Your task to perform on an android device: Go to Reddit.com Image 0: 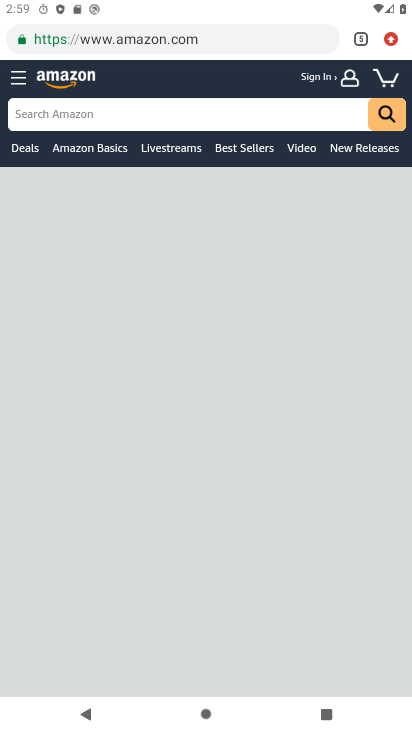
Step 0: press home button
Your task to perform on an android device: Go to Reddit.com Image 1: 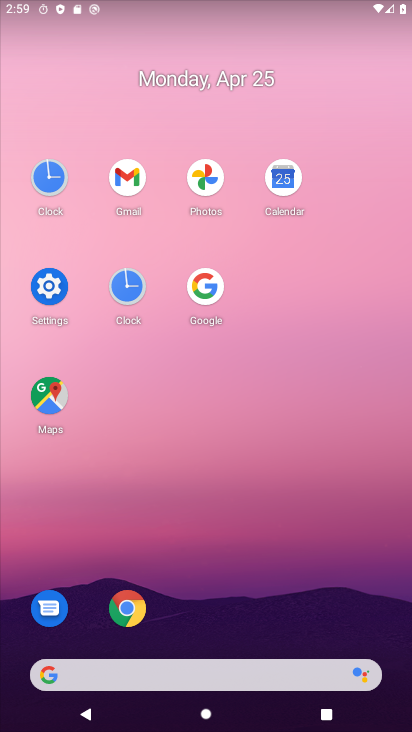
Step 1: click (130, 615)
Your task to perform on an android device: Go to Reddit.com Image 2: 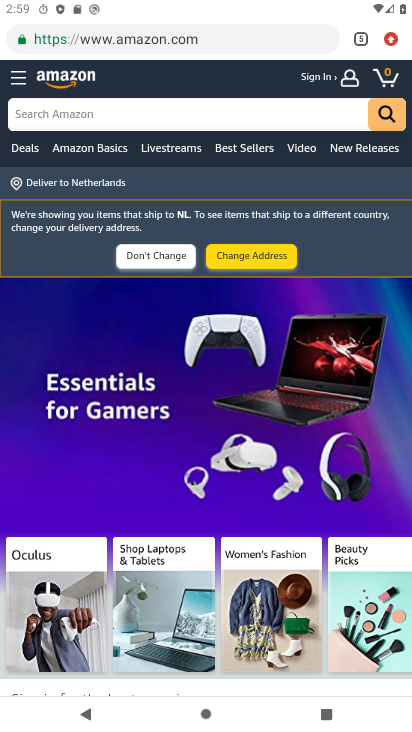
Step 2: click (365, 39)
Your task to perform on an android device: Go to Reddit.com Image 3: 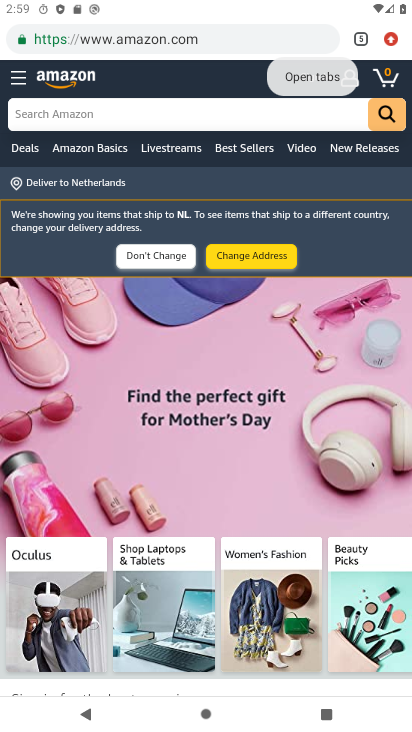
Step 3: click (363, 47)
Your task to perform on an android device: Go to Reddit.com Image 4: 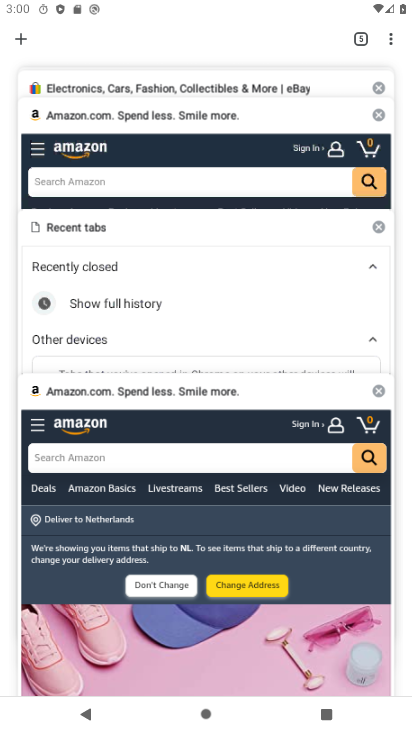
Step 4: click (18, 47)
Your task to perform on an android device: Go to Reddit.com Image 5: 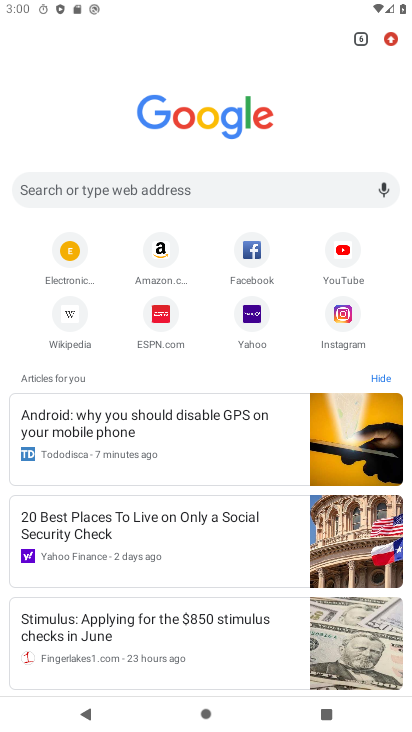
Step 5: click (164, 195)
Your task to perform on an android device: Go to Reddit.com Image 6: 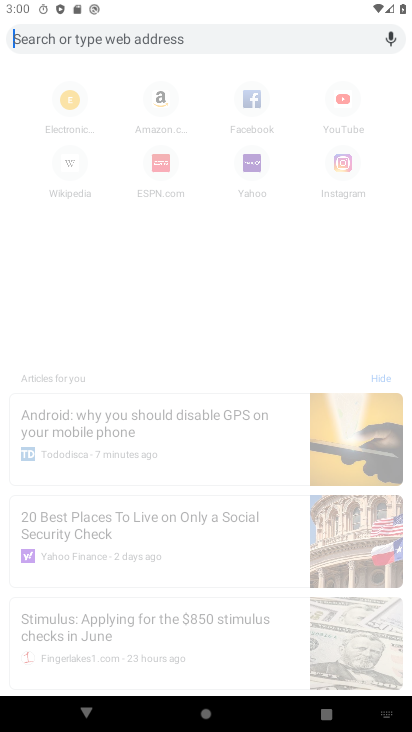
Step 6: type "reddit"
Your task to perform on an android device: Go to Reddit.com Image 7: 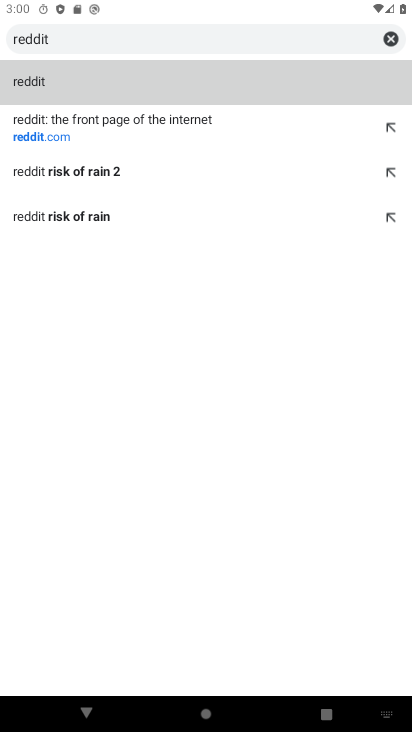
Step 7: click (38, 139)
Your task to perform on an android device: Go to Reddit.com Image 8: 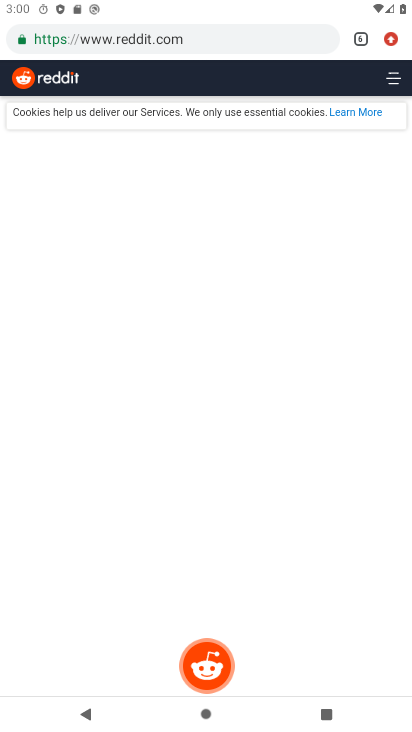
Step 8: task complete